Your task to perform on an android device: Show me recent news Image 0: 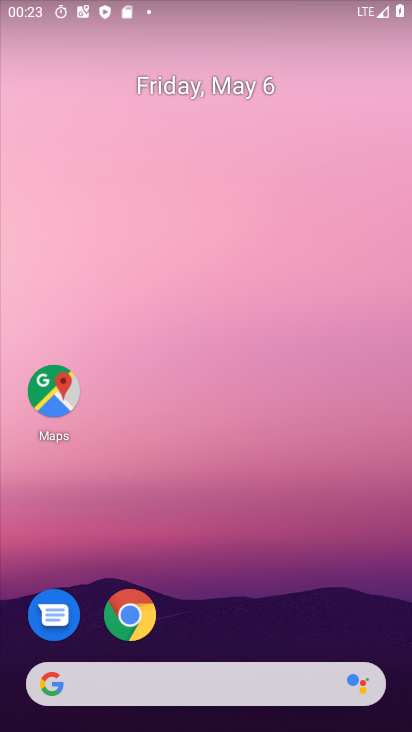
Step 0: drag from (203, 617) to (217, 97)
Your task to perform on an android device: Show me recent news Image 1: 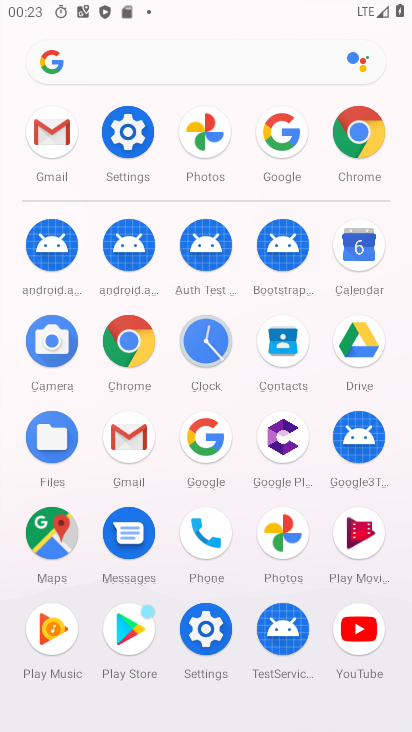
Step 1: click (207, 442)
Your task to perform on an android device: Show me recent news Image 2: 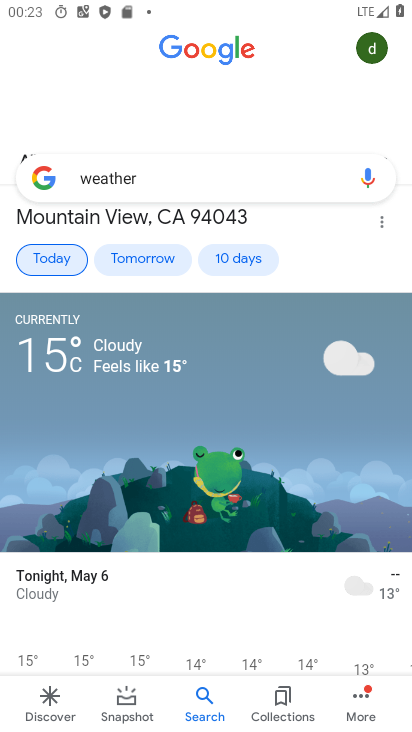
Step 2: click (216, 168)
Your task to perform on an android device: Show me recent news Image 3: 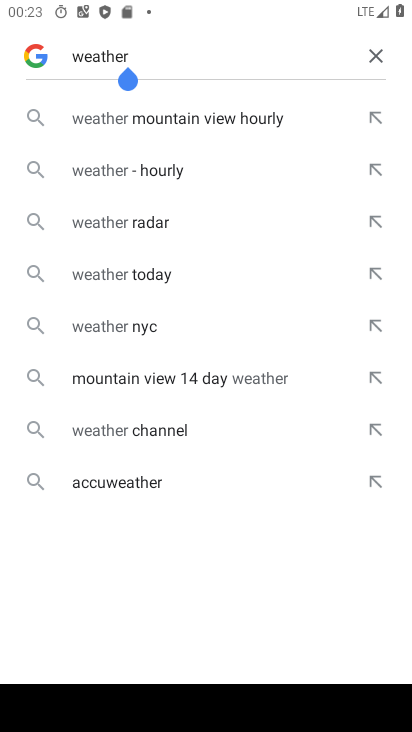
Step 3: click (367, 64)
Your task to perform on an android device: Show me recent news Image 4: 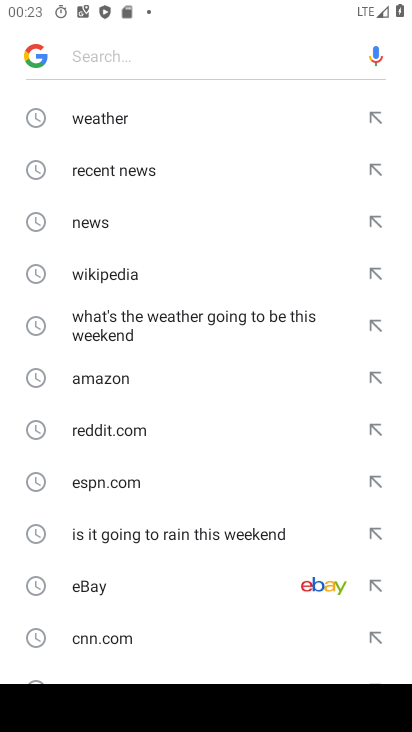
Step 4: drag from (98, 222) to (391, 241)
Your task to perform on an android device: Show me recent news Image 5: 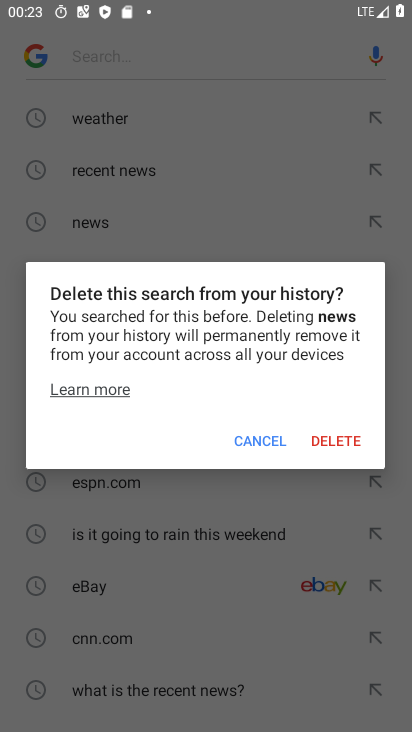
Step 5: click (251, 428)
Your task to perform on an android device: Show me recent news Image 6: 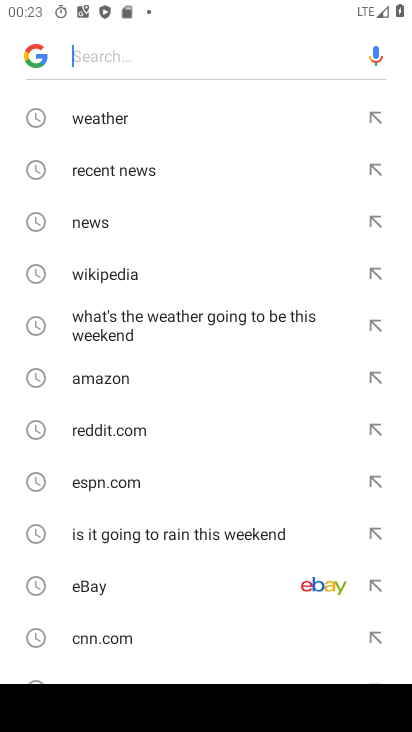
Step 6: click (149, 176)
Your task to perform on an android device: Show me recent news Image 7: 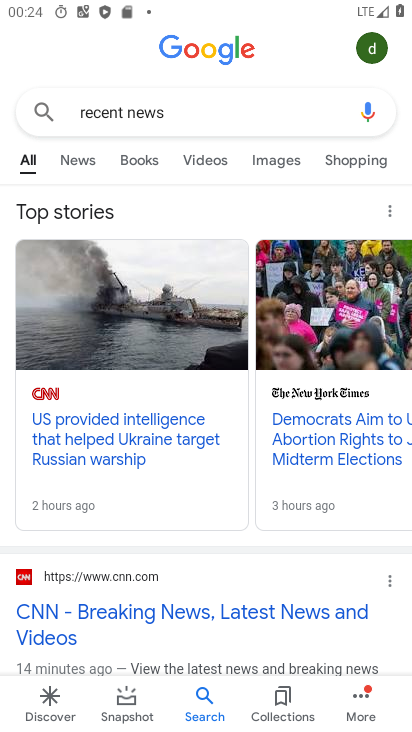
Step 7: task complete